Your task to perform on an android device: Do I have any events tomorrow? Image 0: 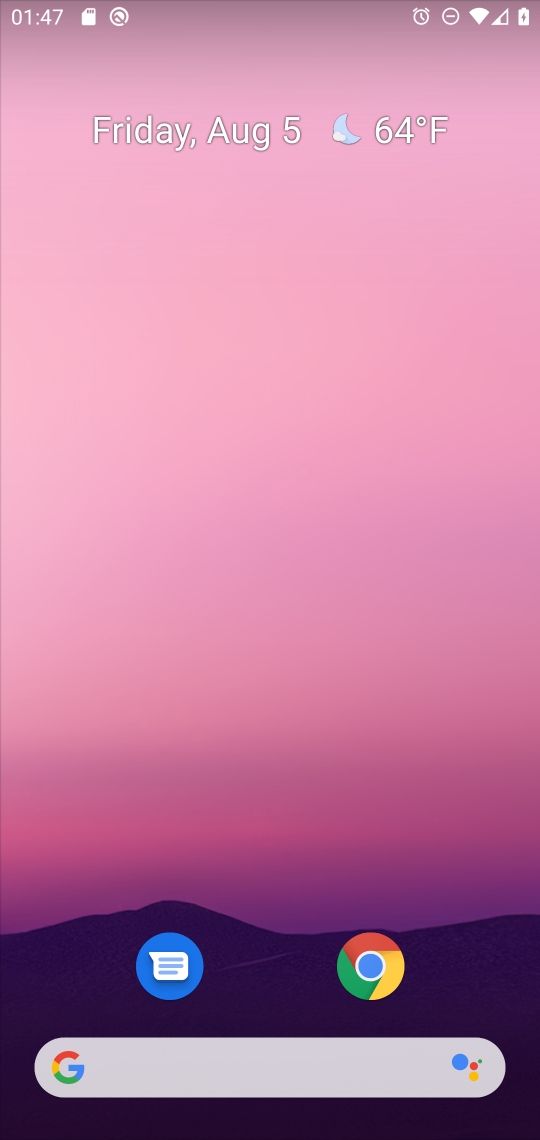
Step 0: drag from (305, 912) to (408, 0)
Your task to perform on an android device: Do I have any events tomorrow? Image 1: 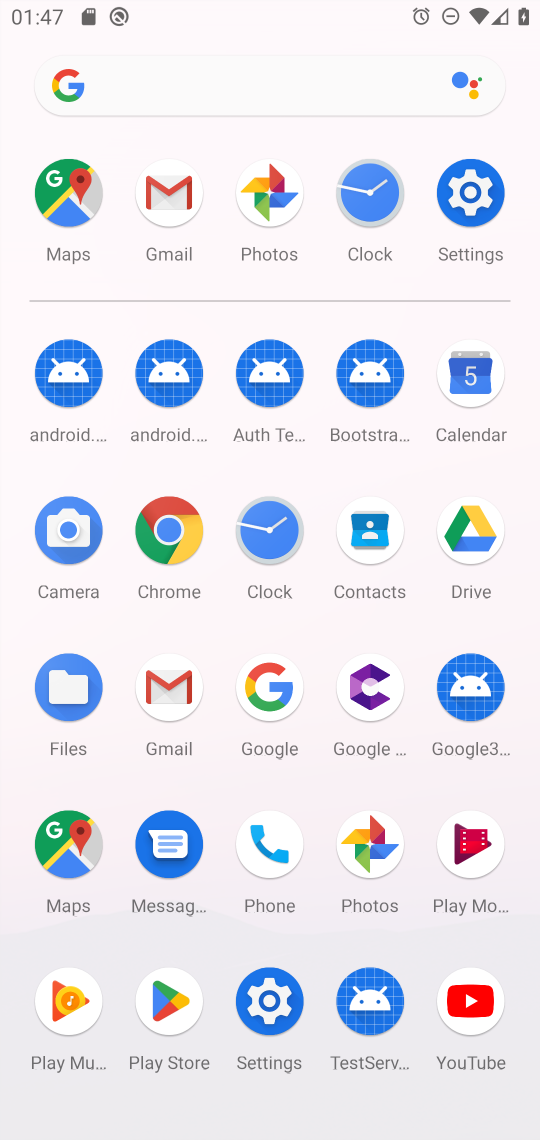
Step 1: click (480, 373)
Your task to perform on an android device: Do I have any events tomorrow? Image 2: 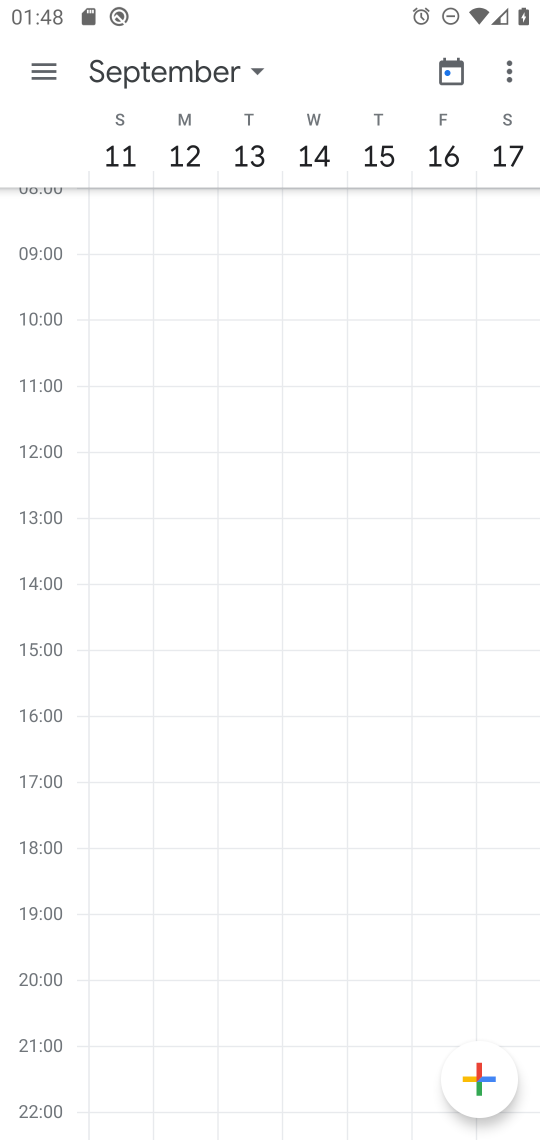
Step 2: click (45, 71)
Your task to perform on an android device: Do I have any events tomorrow? Image 3: 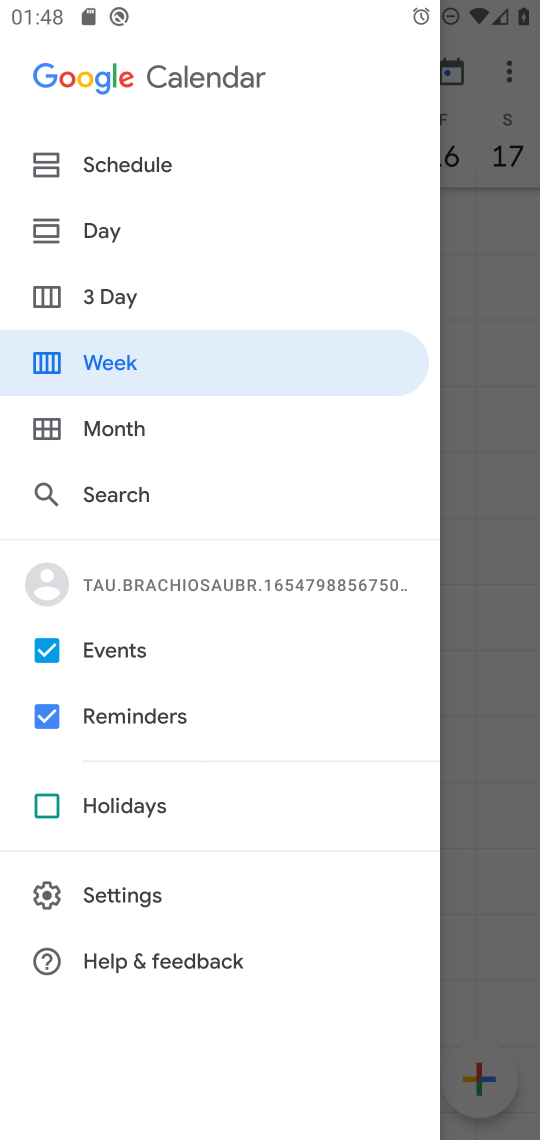
Step 3: click (55, 430)
Your task to perform on an android device: Do I have any events tomorrow? Image 4: 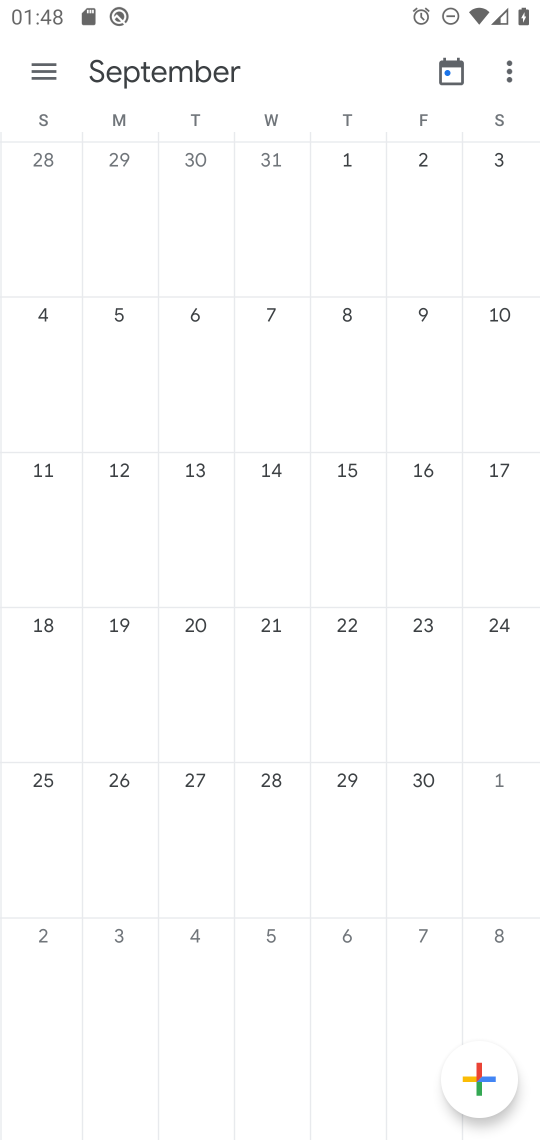
Step 4: drag from (52, 394) to (529, 517)
Your task to perform on an android device: Do I have any events tomorrow? Image 5: 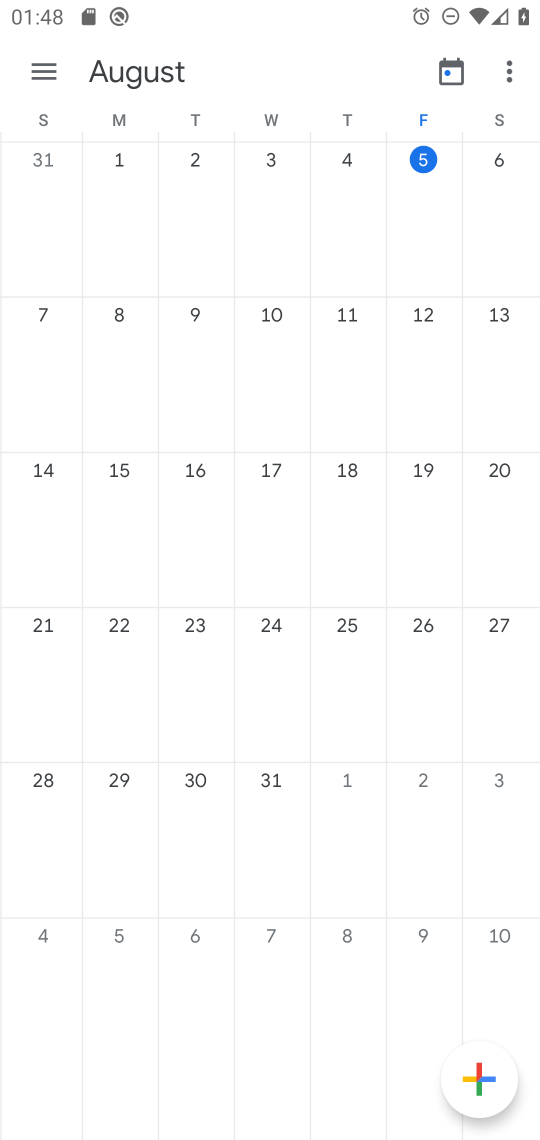
Step 5: click (495, 157)
Your task to perform on an android device: Do I have any events tomorrow? Image 6: 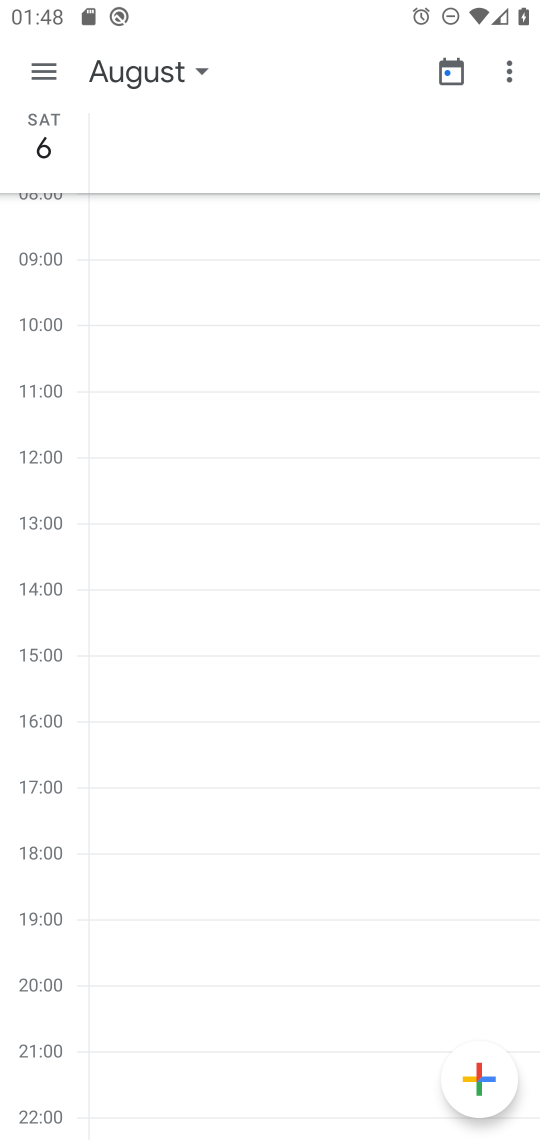
Step 6: task complete